Your task to perform on an android device: change keyboard looks Image 0: 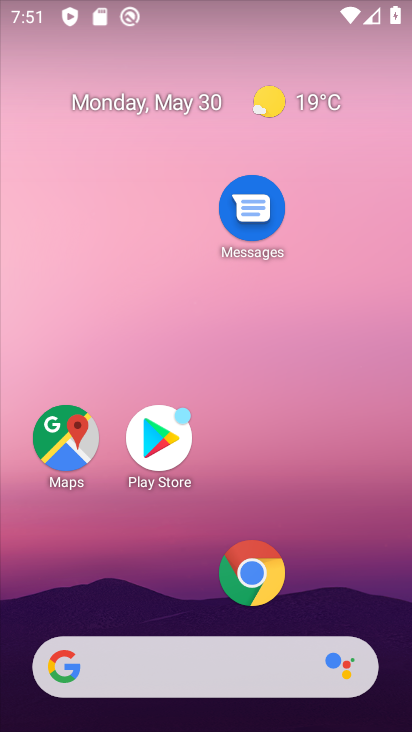
Step 0: drag from (126, 586) to (205, 45)
Your task to perform on an android device: change keyboard looks Image 1: 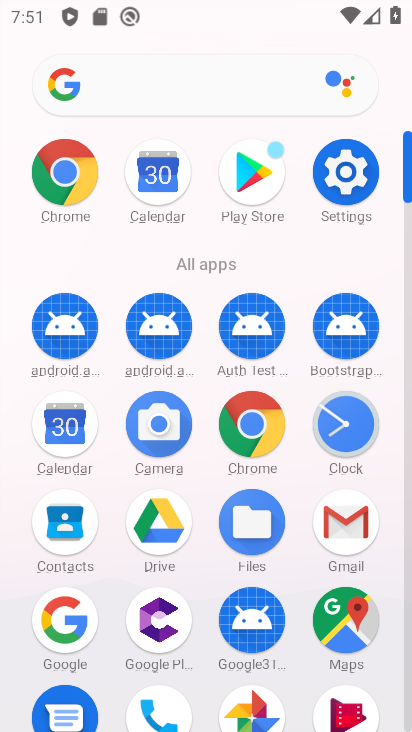
Step 1: drag from (269, 508) to (278, 177)
Your task to perform on an android device: change keyboard looks Image 2: 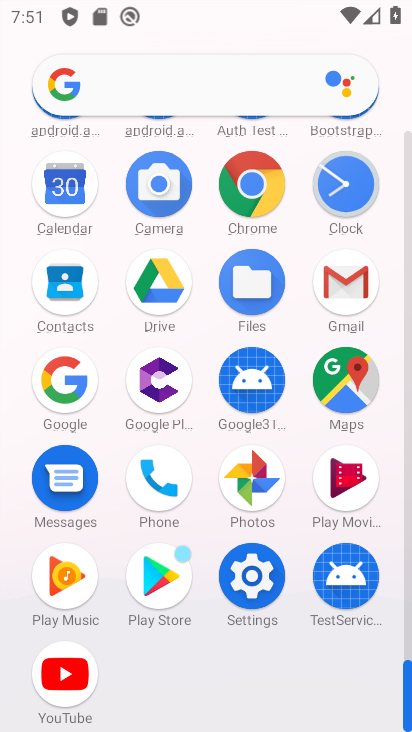
Step 2: click (258, 596)
Your task to perform on an android device: change keyboard looks Image 3: 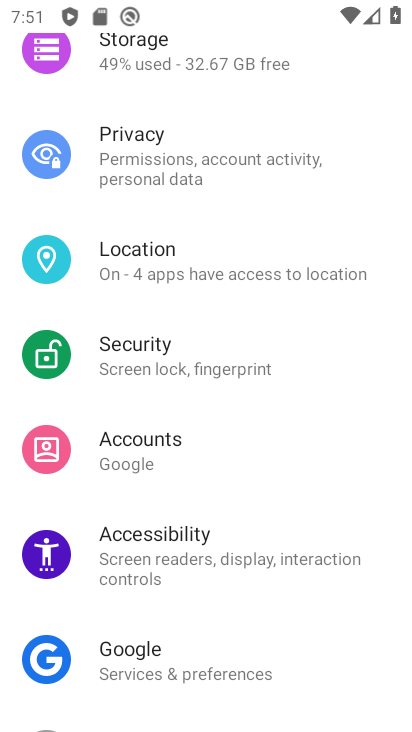
Step 3: drag from (201, 658) to (232, 345)
Your task to perform on an android device: change keyboard looks Image 4: 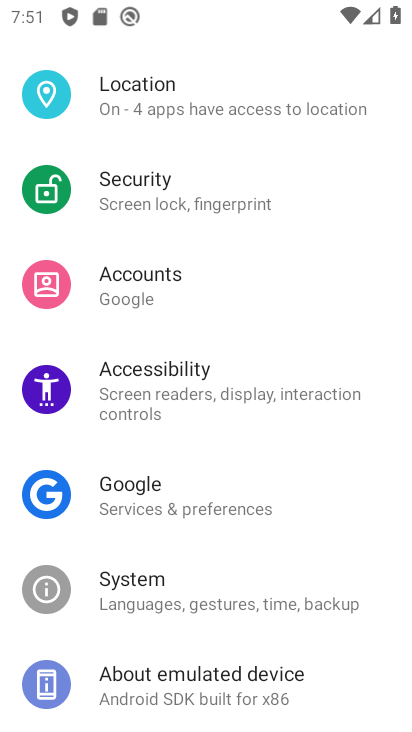
Step 4: click (183, 604)
Your task to perform on an android device: change keyboard looks Image 5: 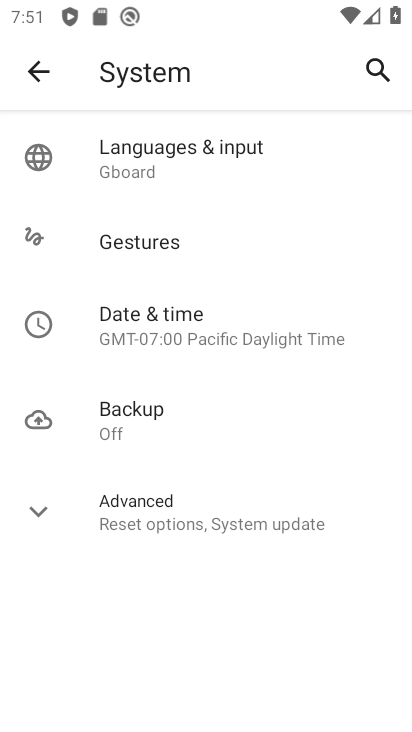
Step 5: click (192, 144)
Your task to perform on an android device: change keyboard looks Image 6: 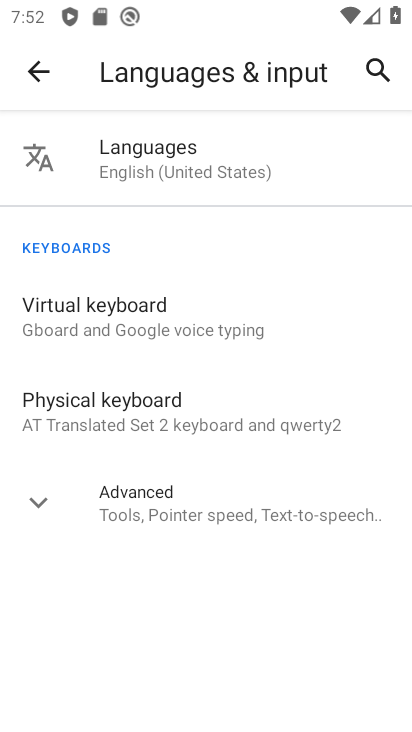
Step 6: click (105, 326)
Your task to perform on an android device: change keyboard looks Image 7: 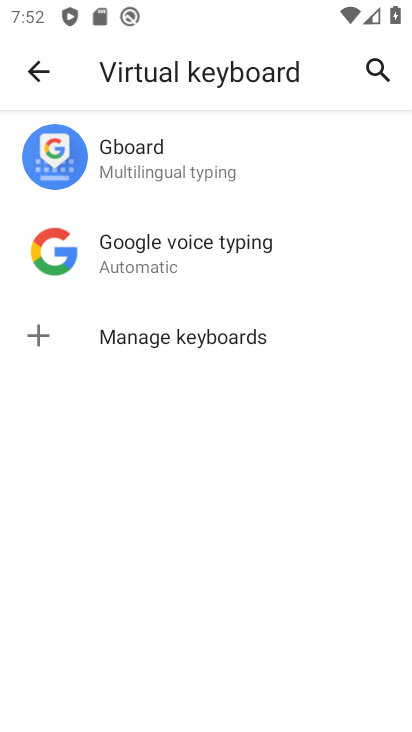
Step 7: click (148, 163)
Your task to perform on an android device: change keyboard looks Image 8: 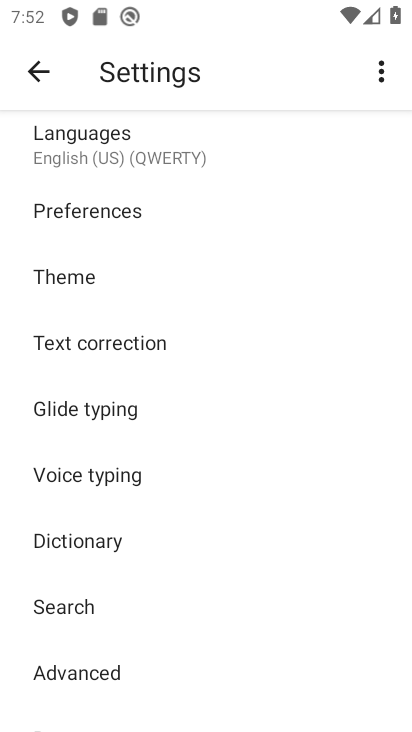
Step 8: click (94, 291)
Your task to perform on an android device: change keyboard looks Image 9: 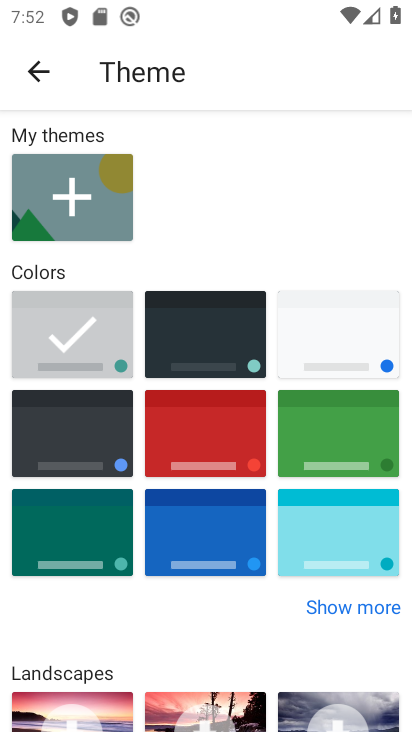
Step 9: click (203, 304)
Your task to perform on an android device: change keyboard looks Image 10: 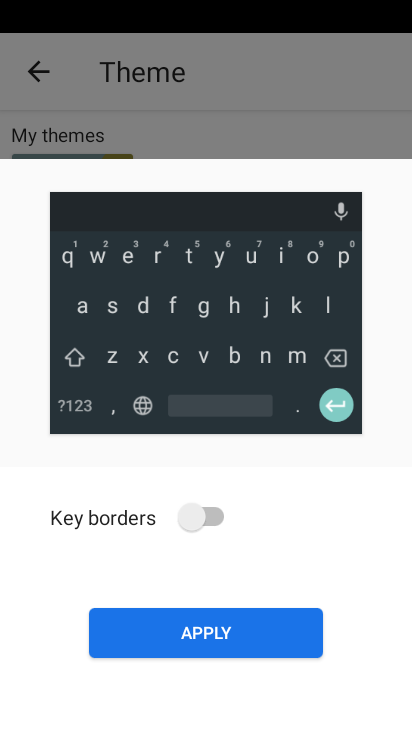
Step 10: click (215, 643)
Your task to perform on an android device: change keyboard looks Image 11: 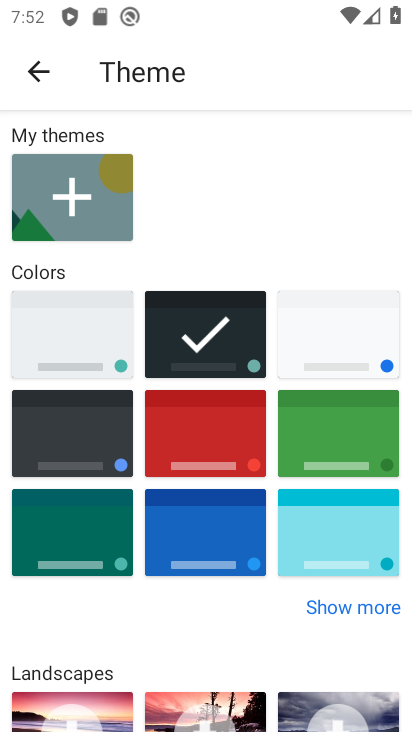
Step 11: task complete